Your task to perform on an android device: search for starred emails in the gmail app Image 0: 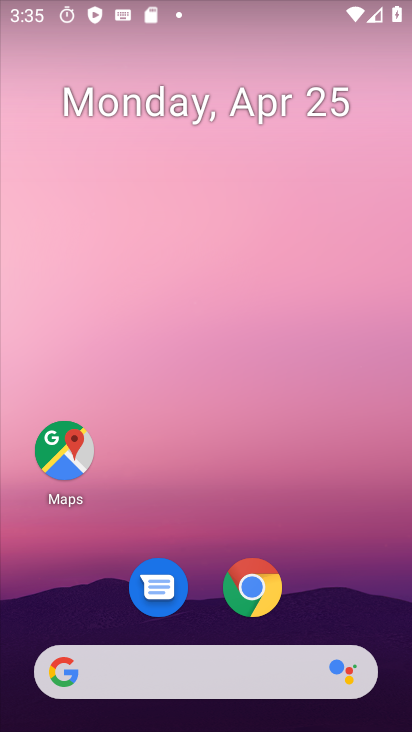
Step 0: drag from (314, 472) to (303, 118)
Your task to perform on an android device: search for starred emails in the gmail app Image 1: 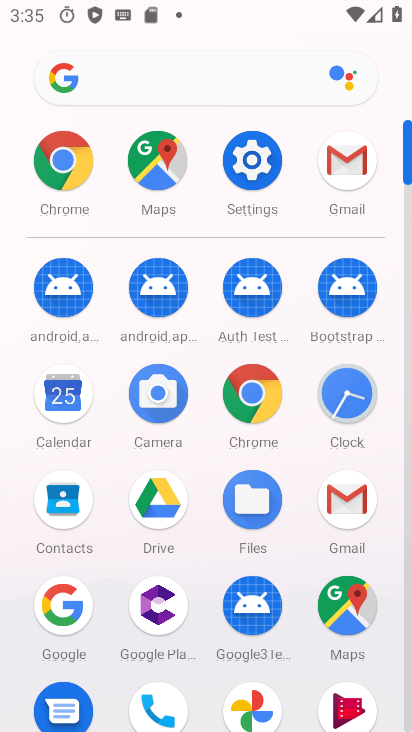
Step 1: click (332, 157)
Your task to perform on an android device: search for starred emails in the gmail app Image 2: 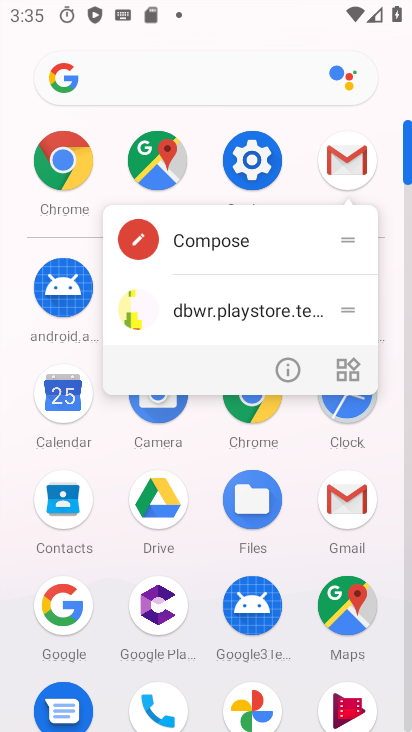
Step 2: click (345, 490)
Your task to perform on an android device: search for starred emails in the gmail app Image 3: 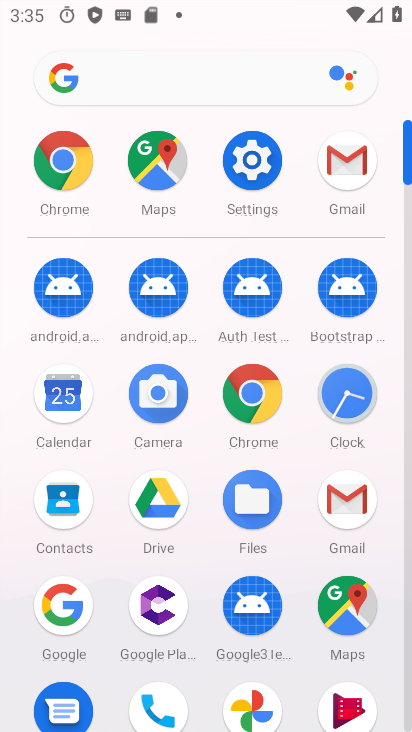
Step 3: click (341, 501)
Your task to perform on an android device: search for starred emails in the gmail app Image 4: 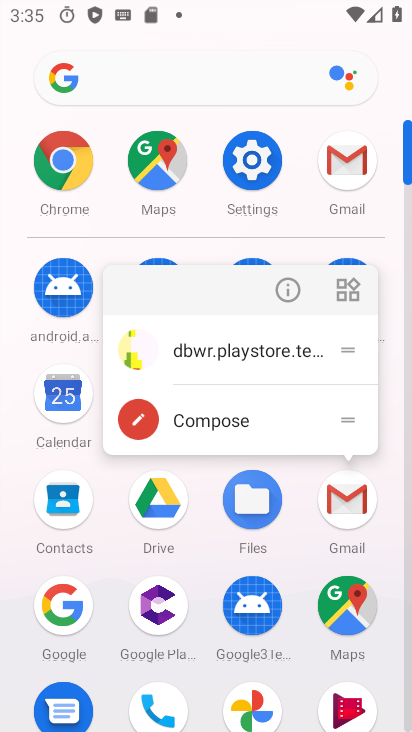
Step 4: click (353, 508)
Your task to perform on an android device: search for starred emails in the gmail app Image 5: 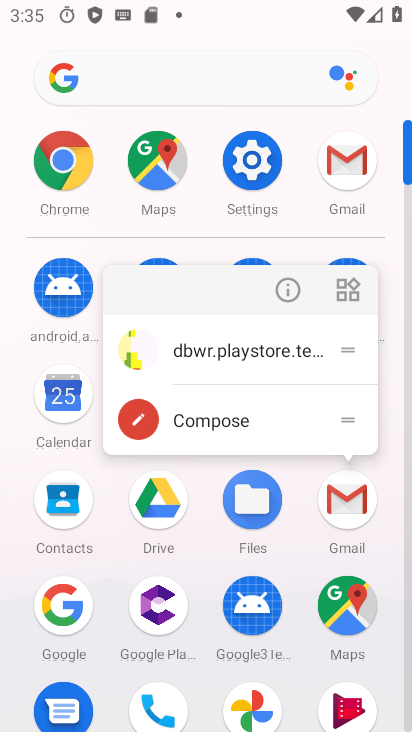
Step 5: click (296, 564)
Your task to perform on an android device: search for starred emails in the gmail app Image 6: 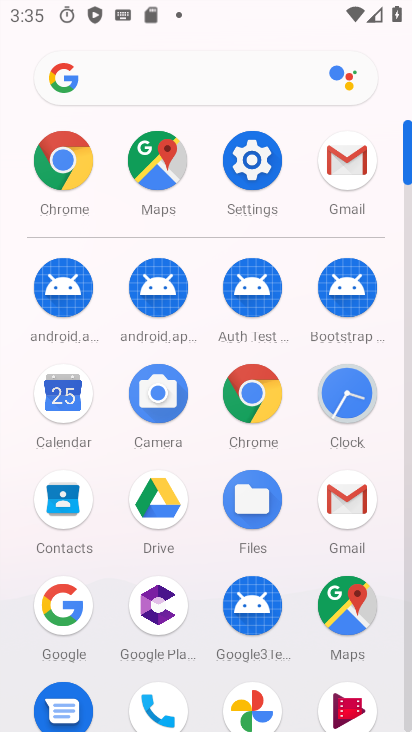
Step 6: click (346, 501)
Your task to perform on an android device: search for starred emails in the gmail app Image 7: 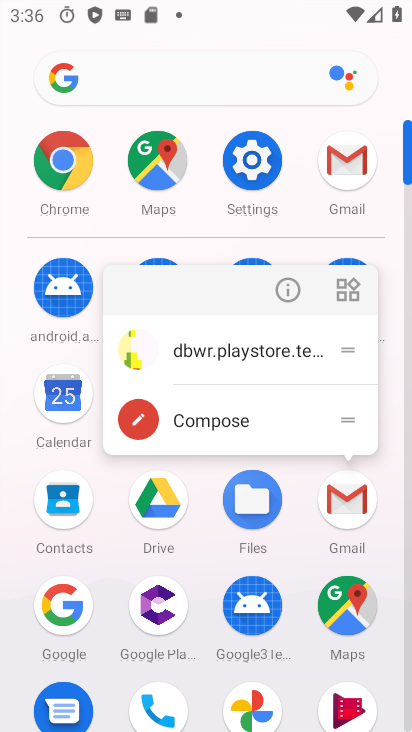
Step 7: click (347, 501)
Your task to perform on an android device: search for starred emails in the gmail app Image 8: 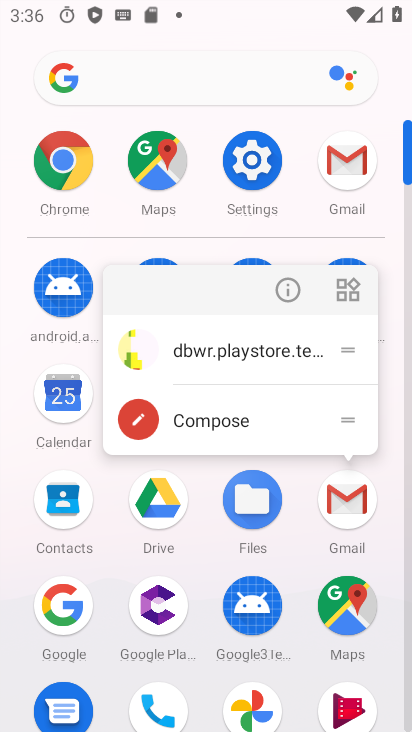
Step 8: click (375, 471)
Your task to perform on an android device: search for starred emails in the gmail app Image 9: 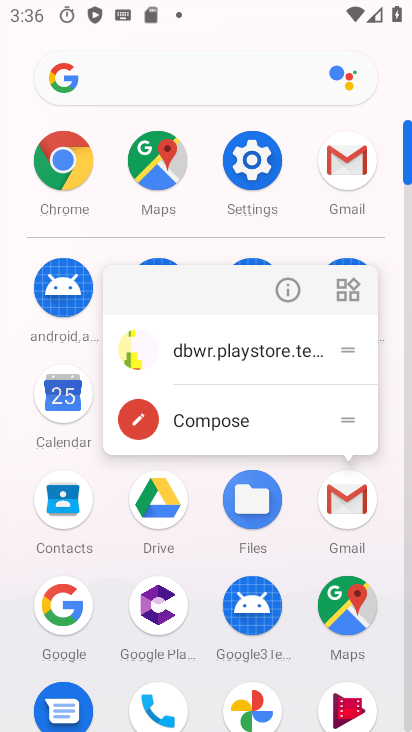
Step 9: click (349, 506)
Your task to perform on an android device: search for starred emails in the gmail app Image 10: 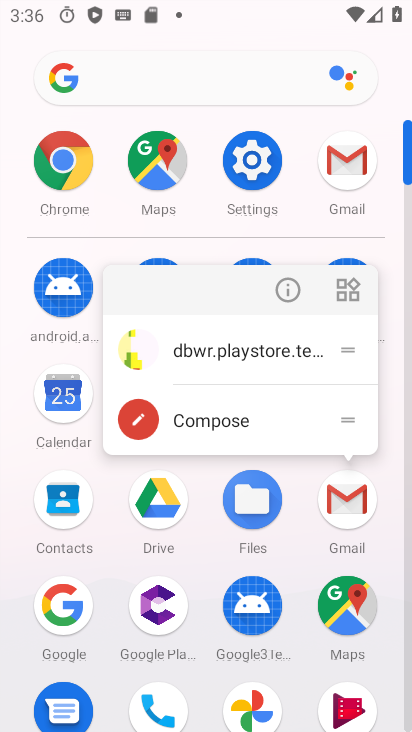
Step 10: click (310, 543)
Your task to perform on an android device: search for starred emails in the gmail app Image 11: 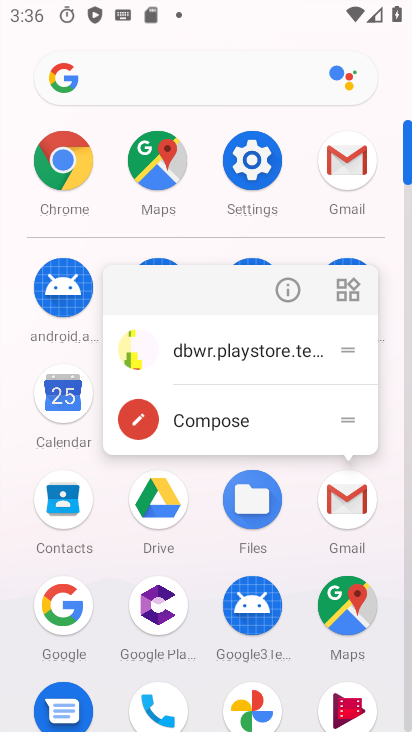
Step 11: click (346, 498)
Your task to perform on an android device: search for starred emails in the gmail app Image 12: 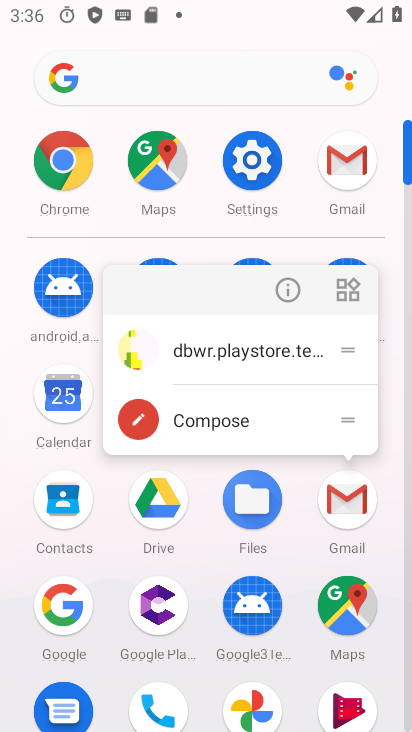
Step 12: click (363, 553)
Your task to perform on an android device: search for starred emails in the gmail app Image 13: 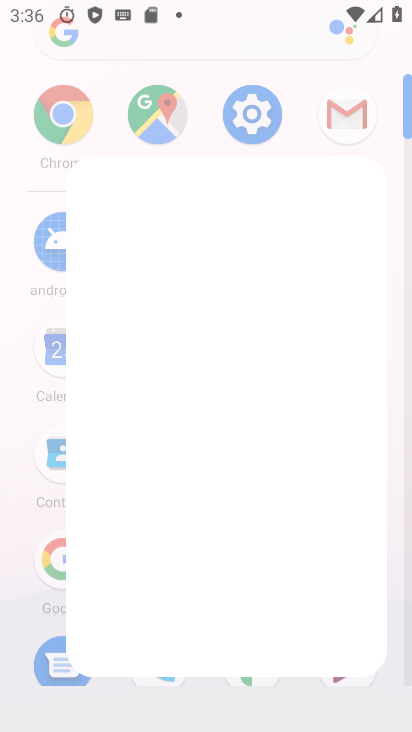
Step 13: drag from (363, 516) to (349, 269)
Your task to perform on an android device: search for starred emails in the gmail app Image 14: 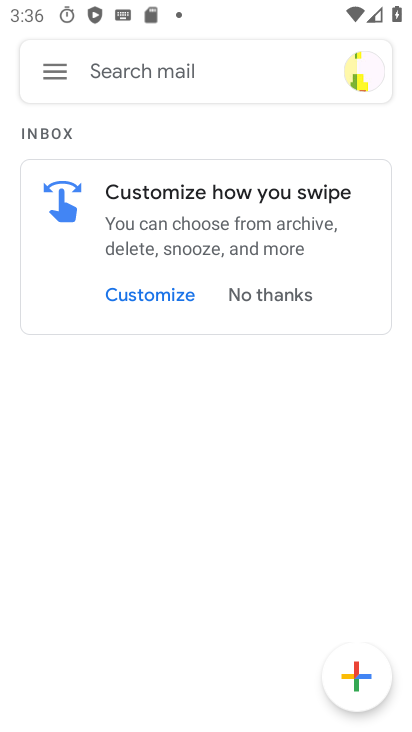
Step 14: click (54, 71)
Your task to perform on an android device: search for starred emails in the gmail app Image 15: 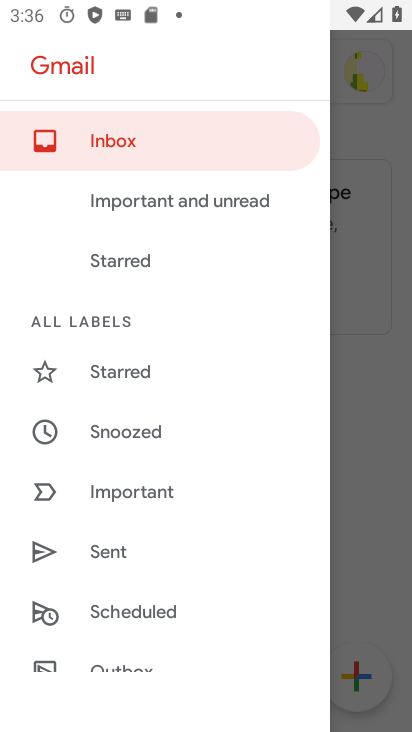
Step 15: click (143, 364)
Your task to perform on an android device: search for starred emails in the gmail app Image 16: 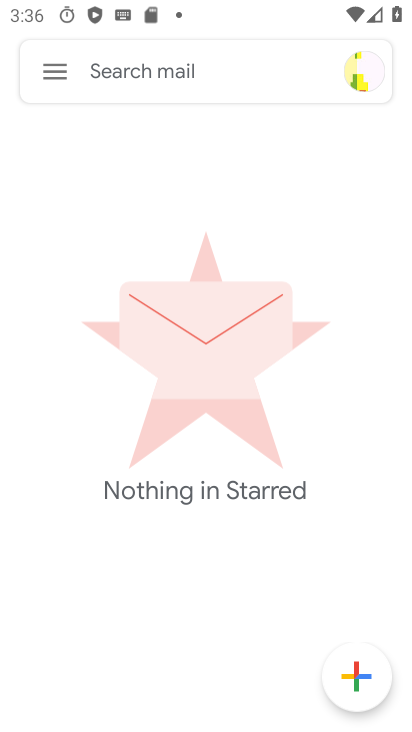
Step 16: task complete